Your task to perform on an android device: open app "Expedia: Hotels, Flights & Car" (install if not already installed), go to login, and select forgot password Image 0: 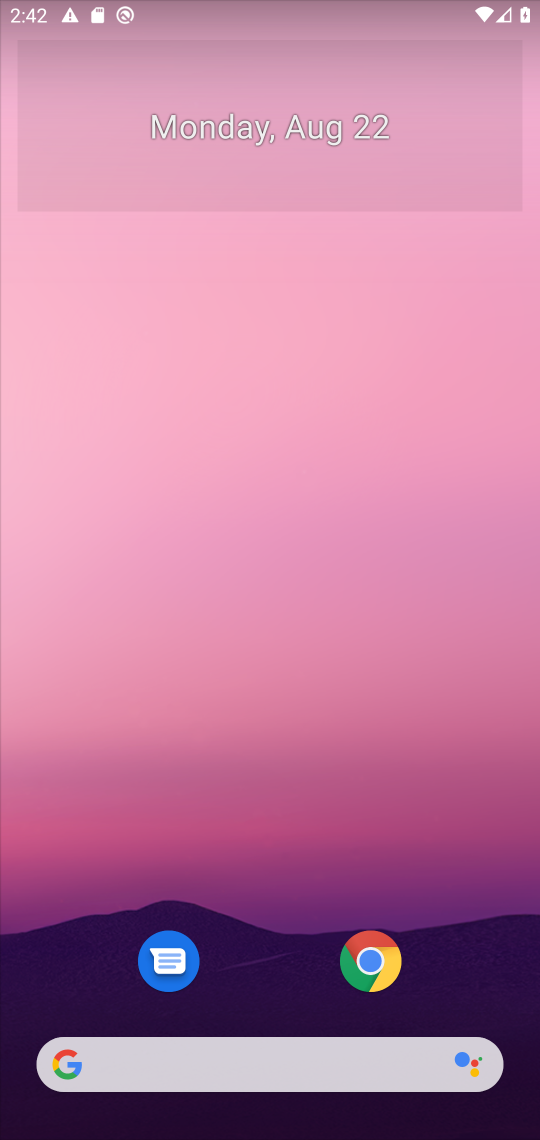
Step 0: press home button
Your task to perform on an android device: open app "Expedia: Hotels, Flights & Car" (install if not already installed), go to login, and select forgot password Image 1: 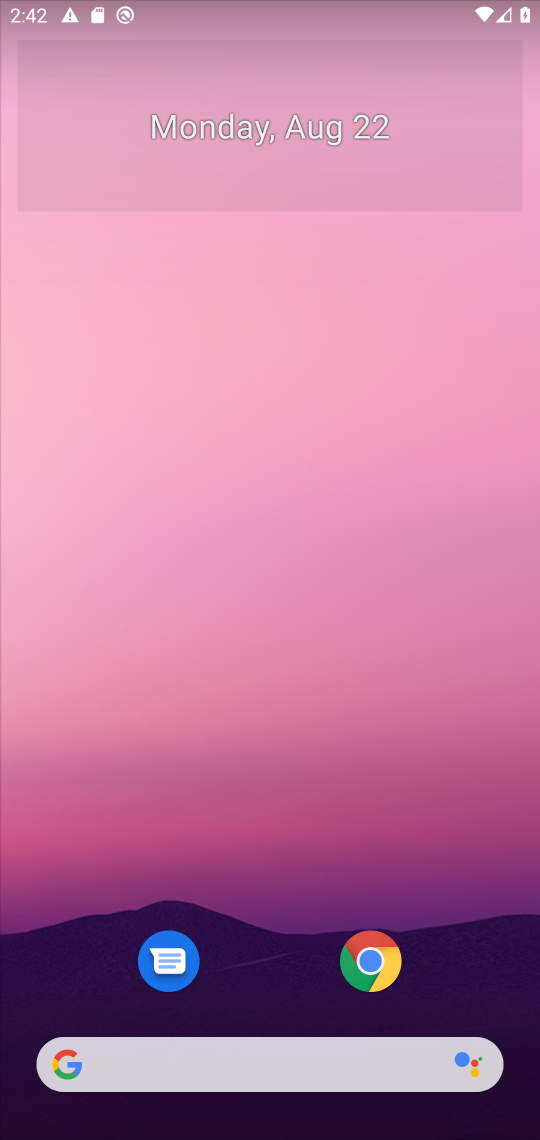
Step 1: drag from (467, 904) to (477, 106)
Your task to perform on an android device: open app "Expedia: Hotels, Flights & Car" (install if not already installed), go to login, and select forgot password Image 2: 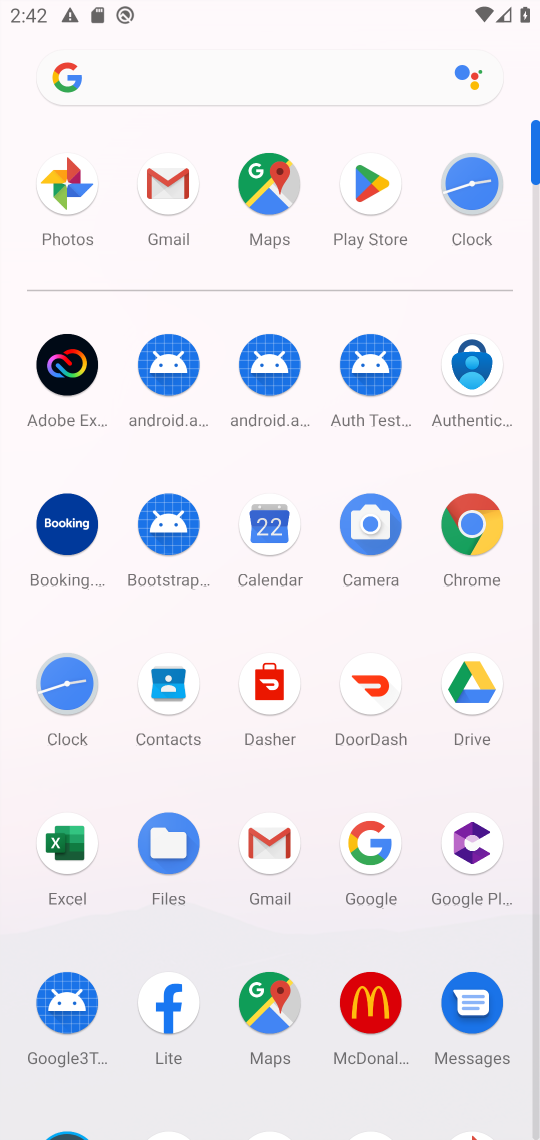
Step 2: click (366, 199)
Your task to perform on an android device: open app "Expedia: Hotels, Flights & Car" (install if not already installed), go to login, and select forgot password Image 3: 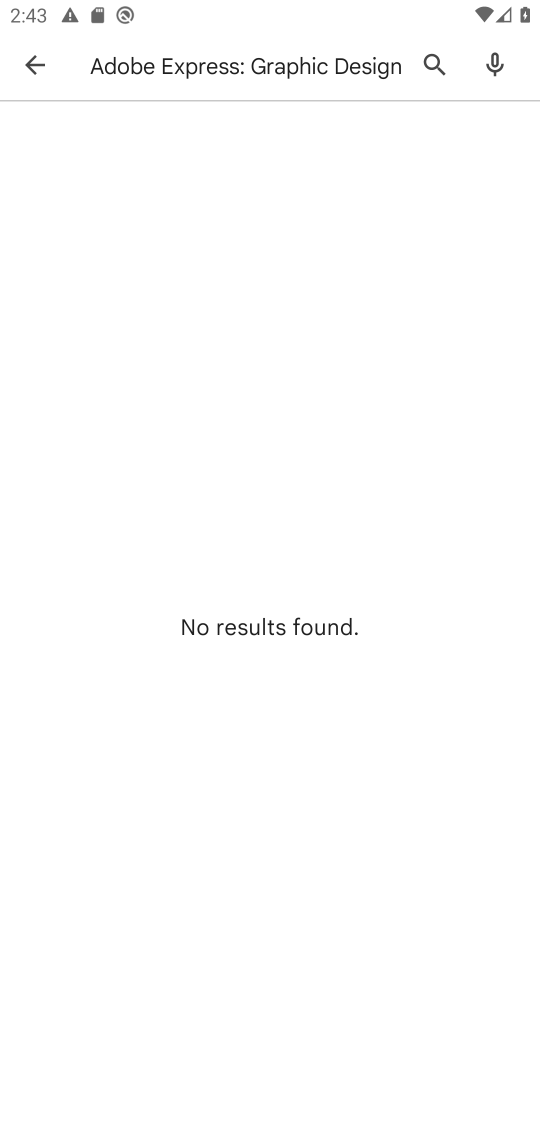
Step 3: press back button
Your task to perform on an android device: open app "Expedia: Hotels, Flights & Car" (install if not already installed), go to login, and select forgot password Image 4: 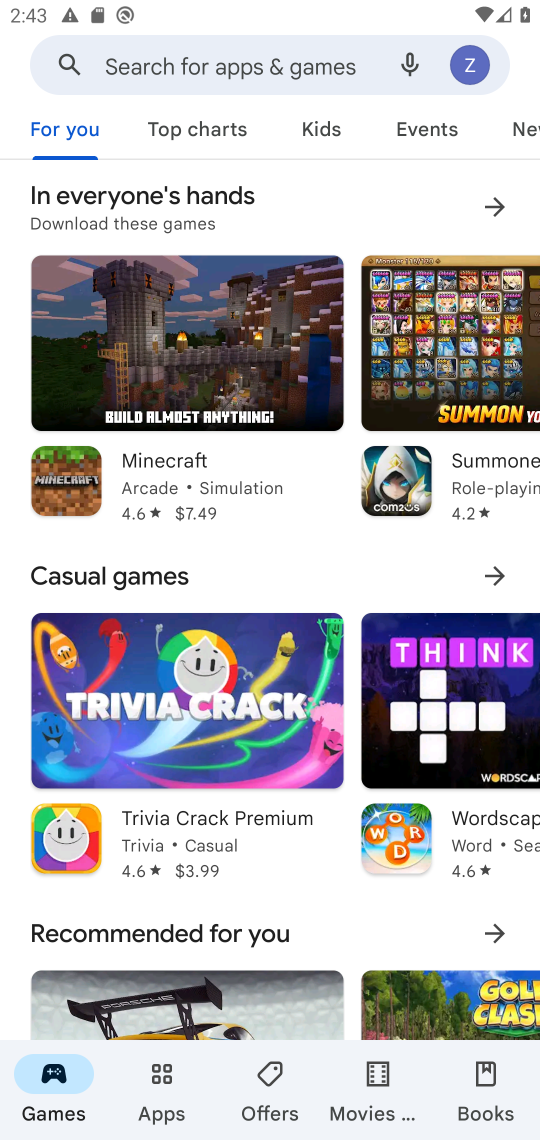
Step 4: click (280, 66)
Your task to perform on an android device: open app "Expedia: Hotels, Flights & Car" (install if not already installed), go to login, and select forgot password Image 5: 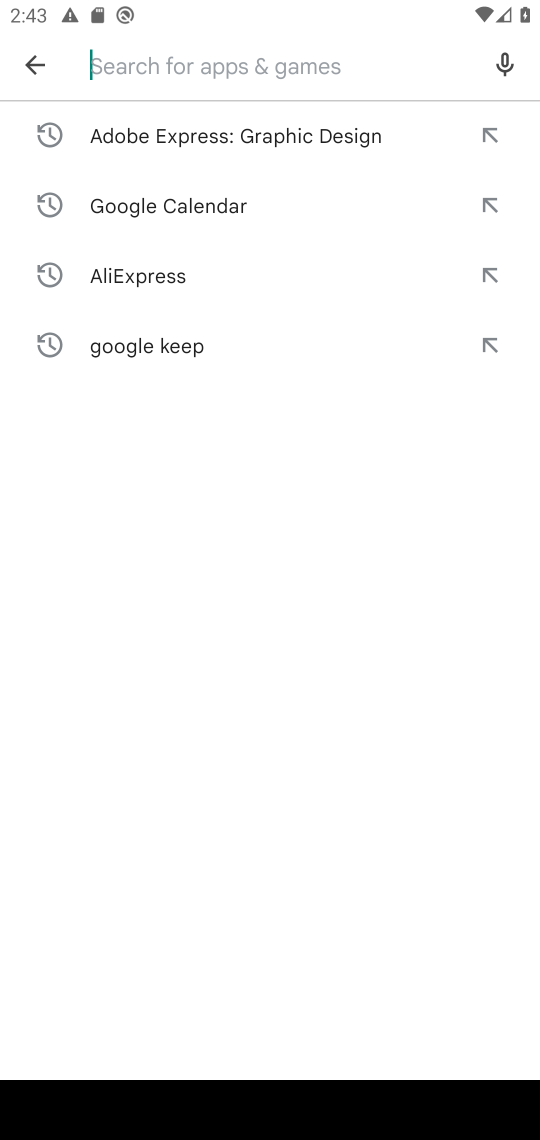
Step 5: press enter
Your task to perform on an android device: open app "Expedia: Hotels, Flights & Car" (install if not already installed), go to login, and select forgot password Image 6: 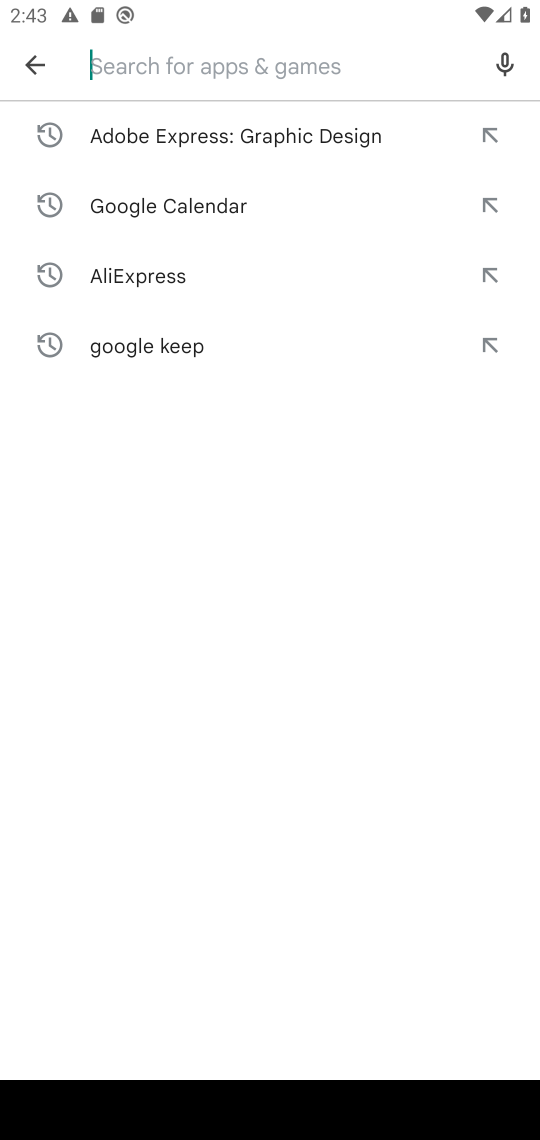
Step 6: type "Expedia: Hotels, Flights & Car"
Your task to perform on an android device: open app "Expedia: Hotels, Flights & Car" (install if not already installed), go to login, and select forgot password Image 7: 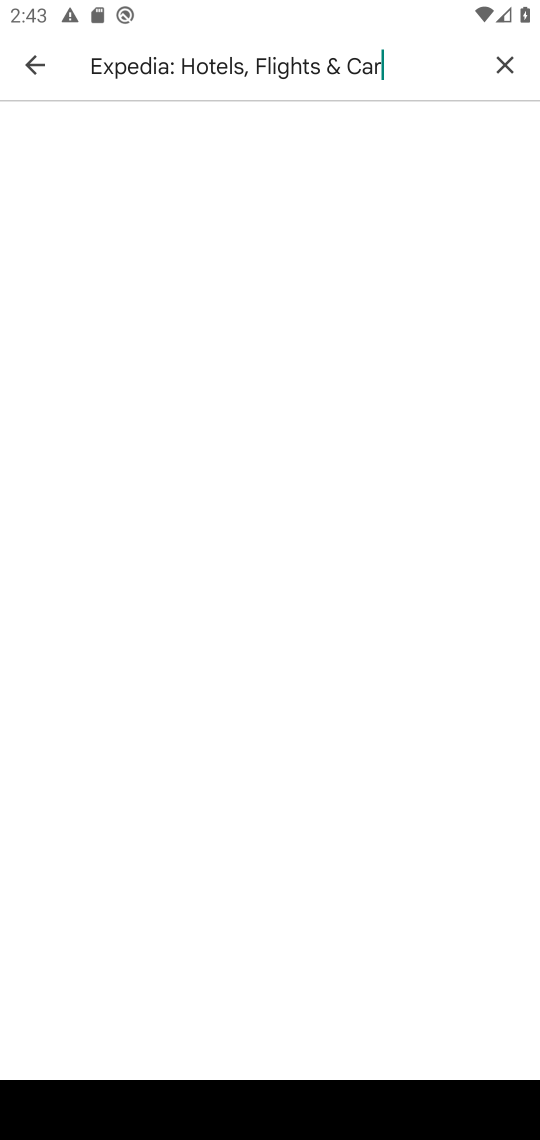
Step 7: task complete